Your task to perform on an android device: install app "Gmail" Image 0: 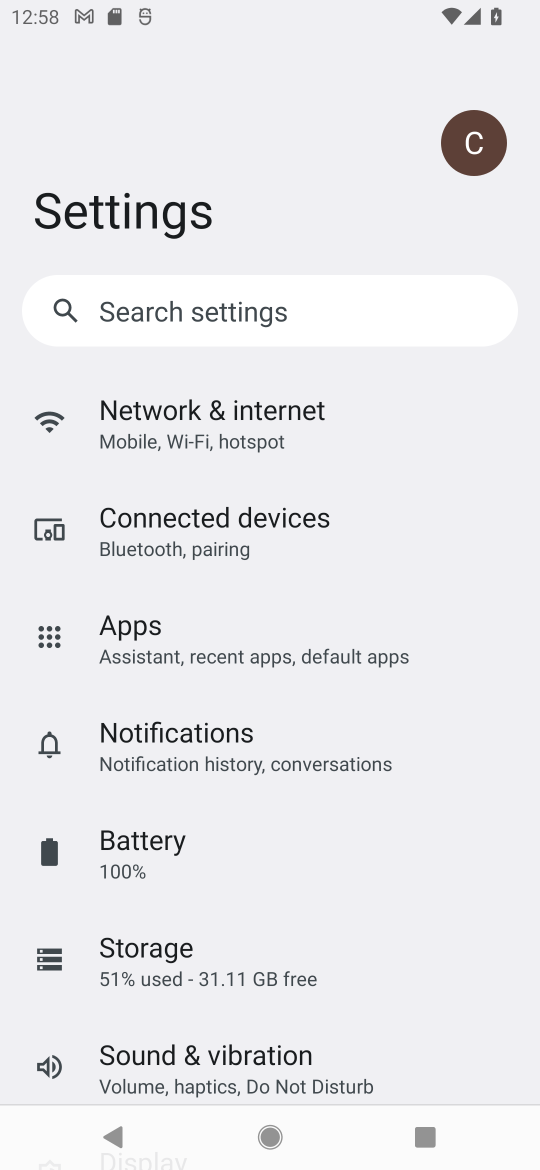
Step 0: press home button
Your task to perform on an android device: install app "Gmail" Image 1: 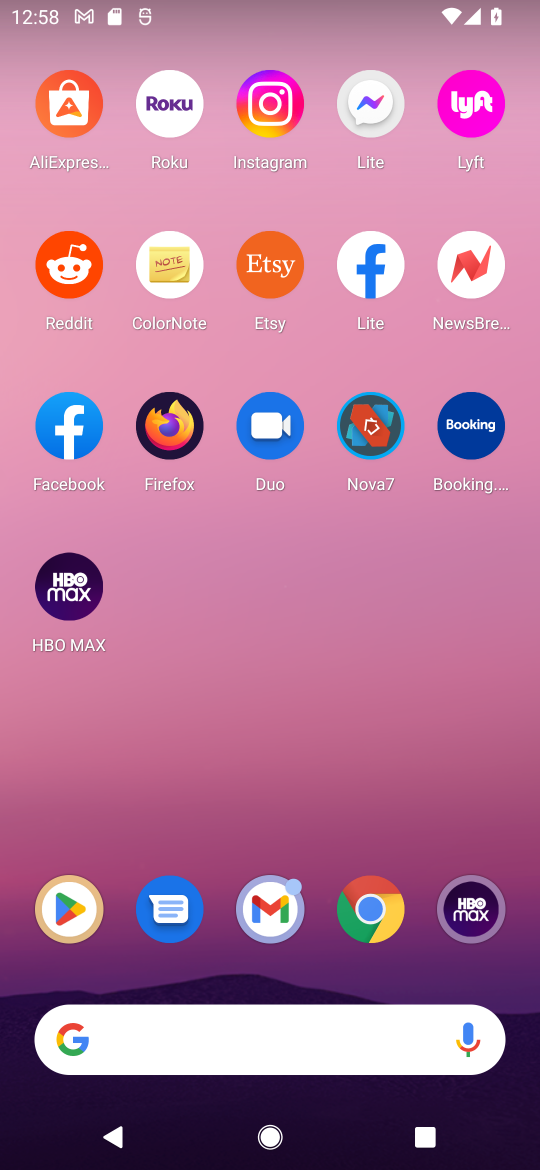
Step 1: click (65, 919)
Your task to perform on an android device: install app "Gmail" Image 2: 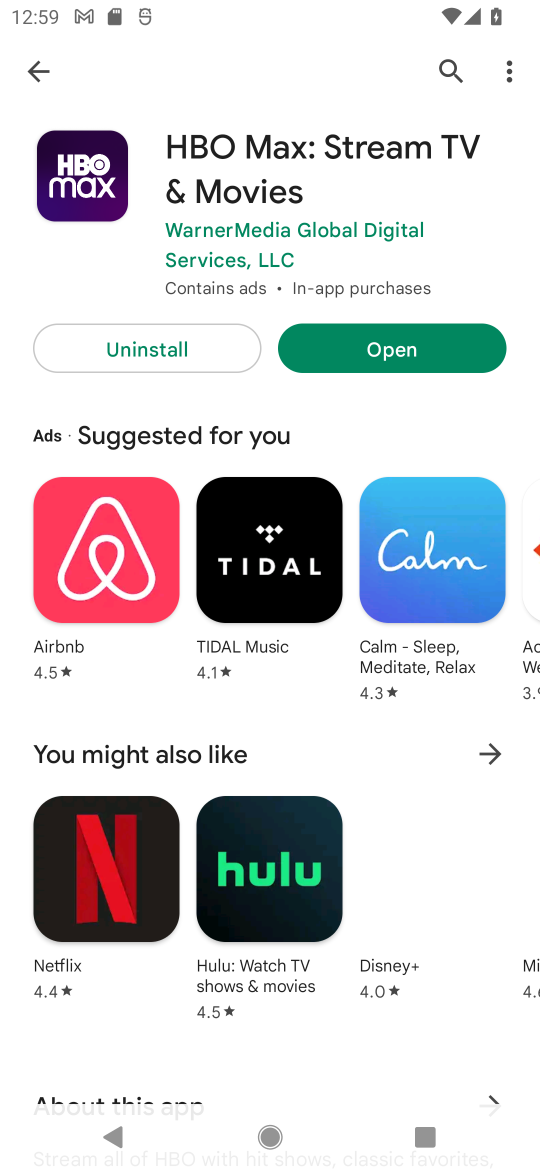
Step 2: click (447, 69)
Your task to perform on an android device: install app "Gmail" Image 3: 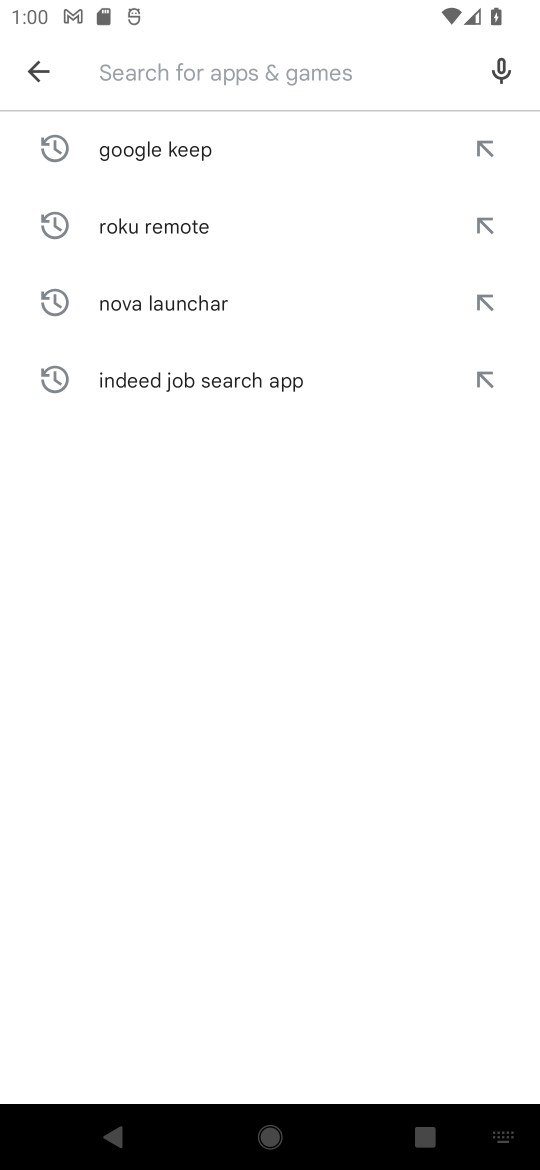
Step 3: type "Gmail"
Your task to perform on an android device: install app "Gmail" Image 4: 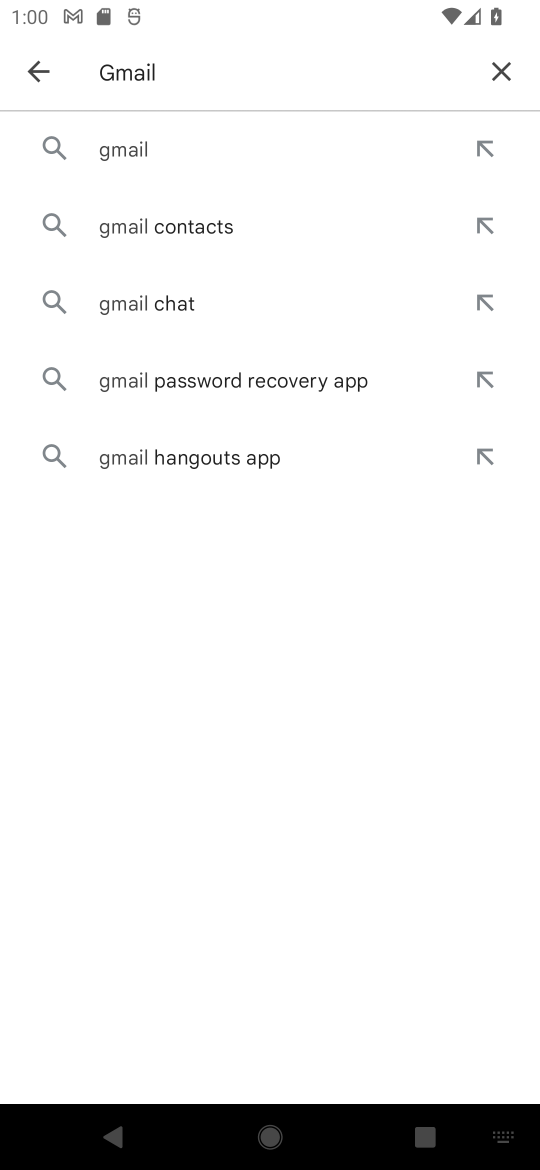
Step 4: click (127, 150)
Your task to perform on an android device: install app "Gmail" Image 5: 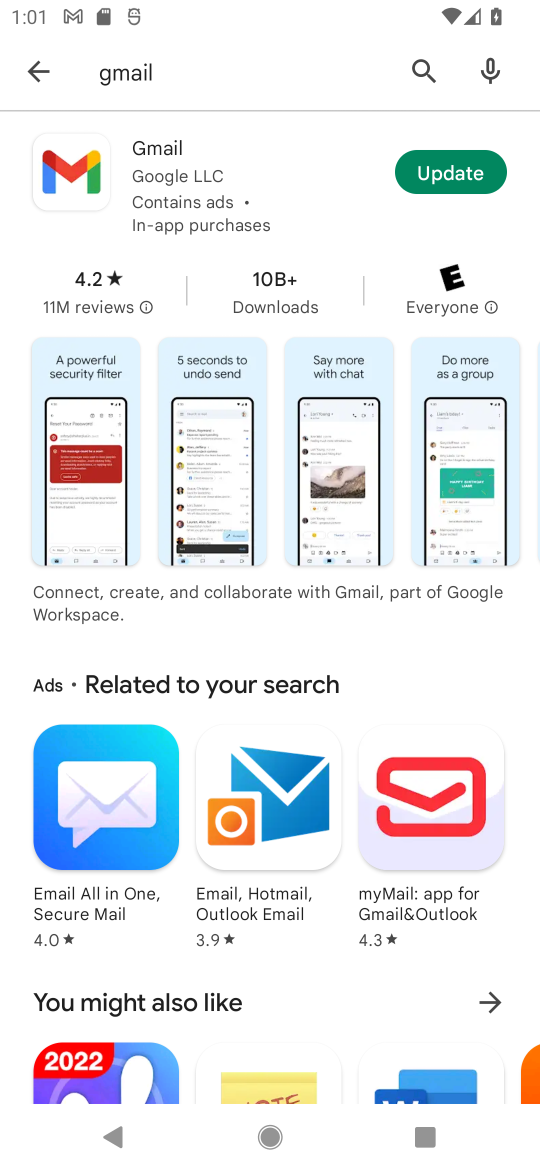
Step 5: task complete